Your task to perform on an android device: What's the weather going to be this weekend? Image 0: 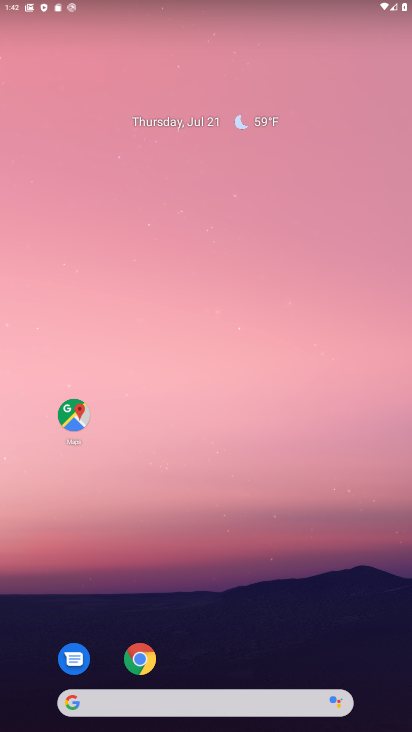
Step 0: drag from (286, 555) to (222, 14)
Your task to perform on an android device: What's the weather going to be this weekend? Image 1: 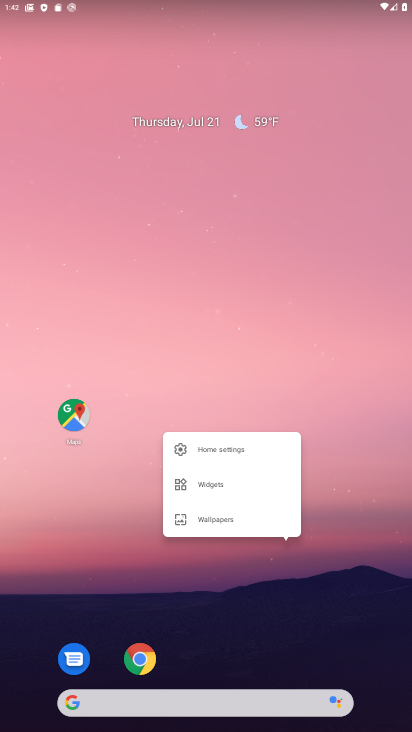
Step 1: click (300, 213)
Your task to perform on an android device: What's the weather going to be this weekend? Image 2: 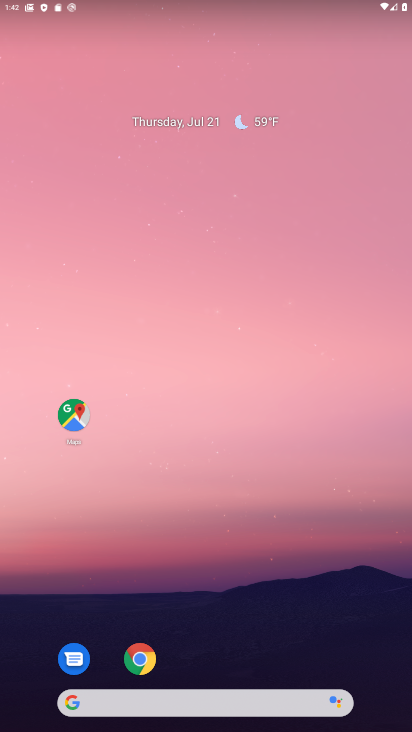
Step 2: click (269, 123)
Your task to perform on an android device: What's the weather going to be this weekend? Image 3: 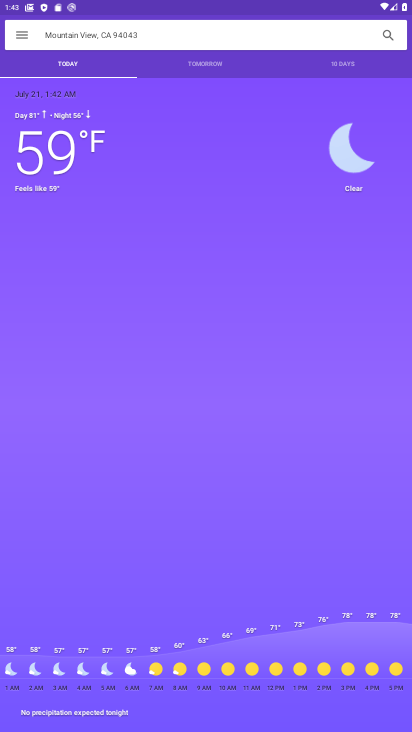
Step 3: click (212, 69)
Your task to perform on an android device: What's the weather going to be this weekend? Image 4: 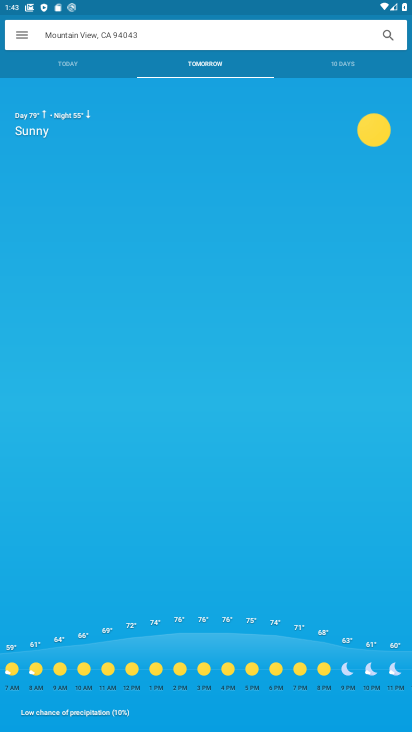
Step 4: click (351, 65)
Your task to perform on an android device: What's the weather going to be this weekend? Image 5: 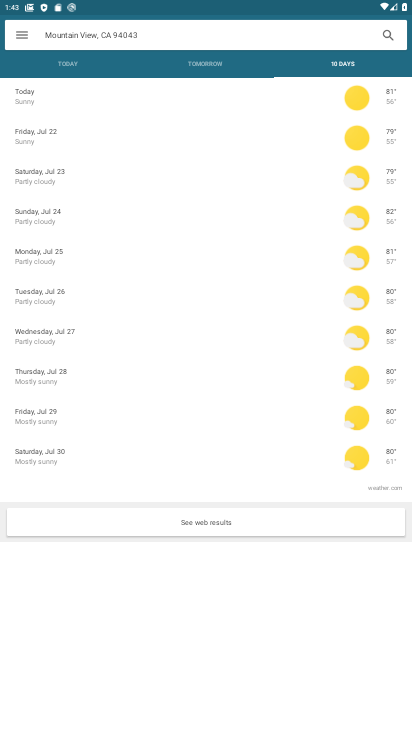
Step 5: task complete